Your task to perform on an android device: Open settings on Google Maps Image 0: 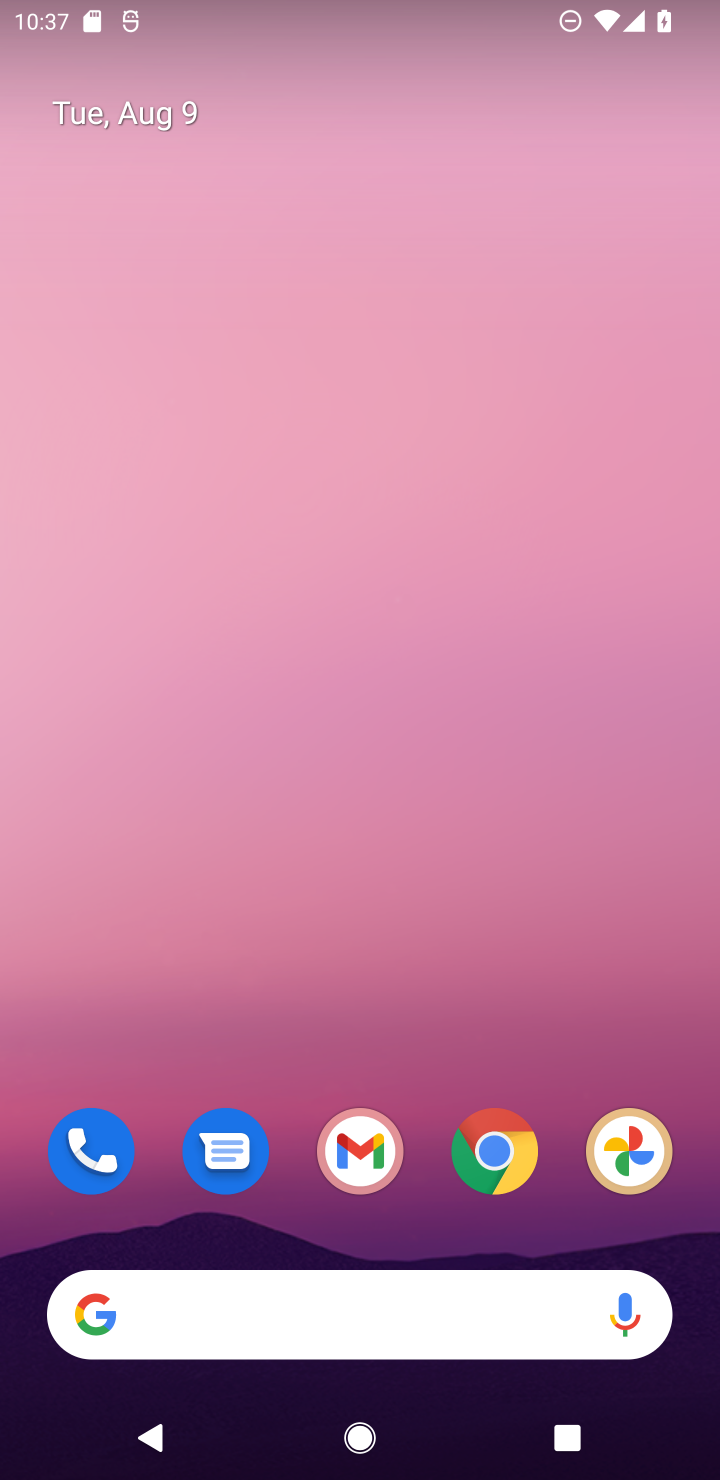
Step 0: drag from (435, 1195) to (339, 323)
Your task to perform on an android device: Open settings on Google Maps Image 1: 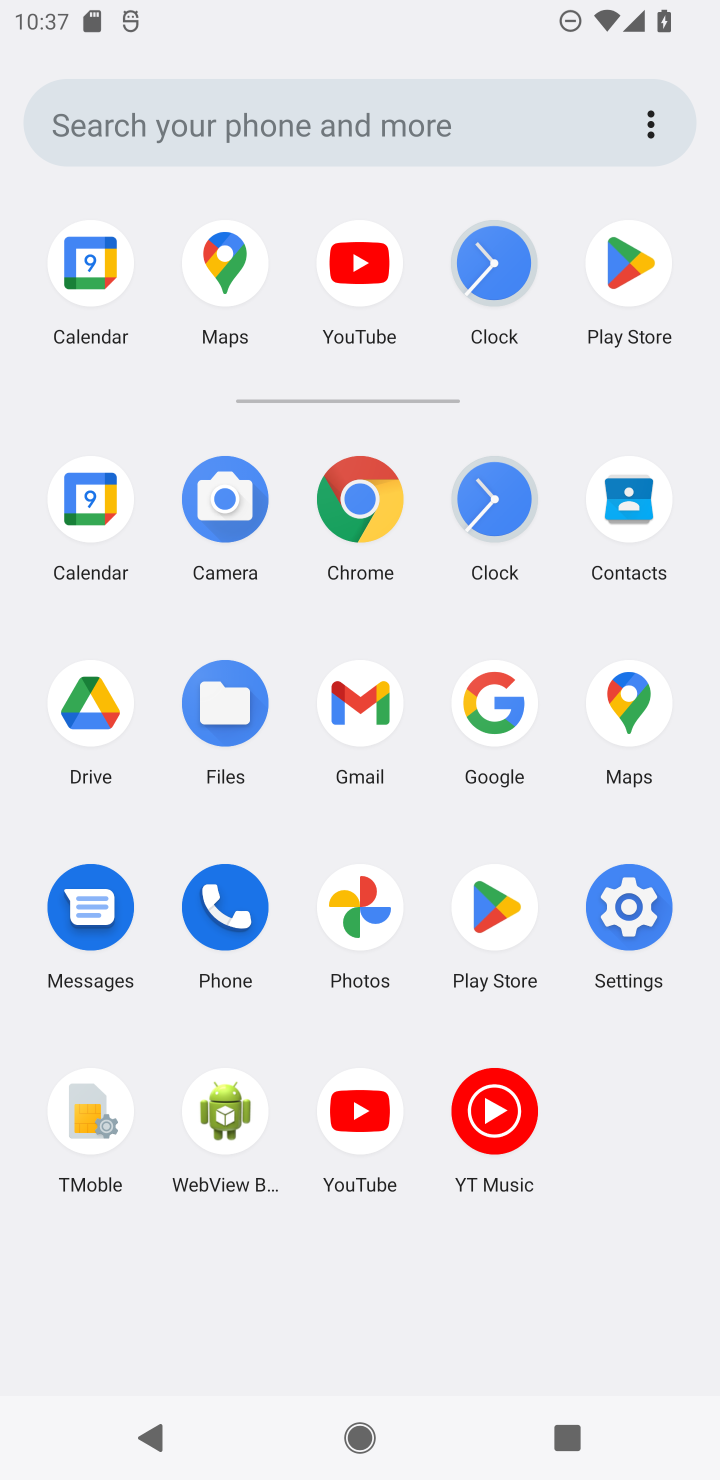
Step 1: click (226, 269)
Your task to perform on an android device: Open settings on Google Maps Image 2: 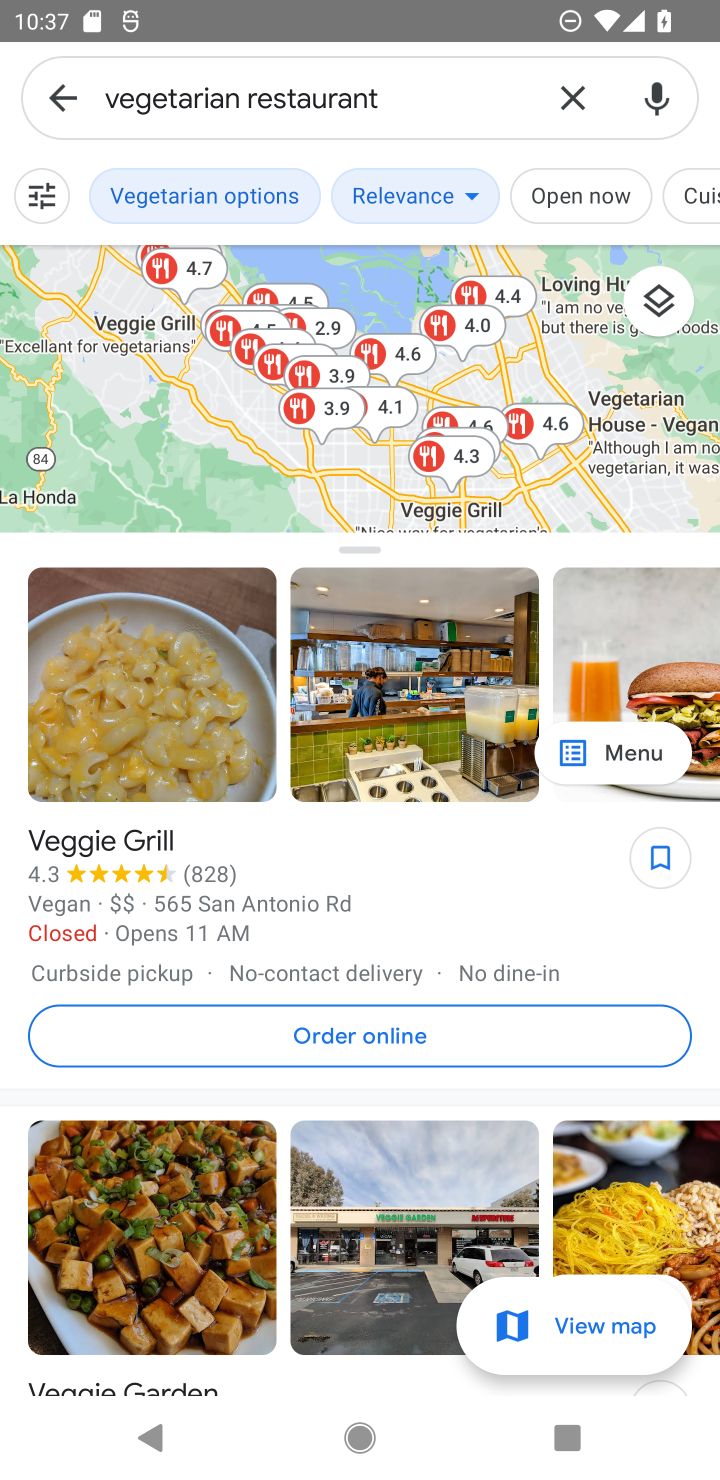
Step 2: click (578, 105)
Your task to perform on an android device: Open settings on Google Maps Image 3: 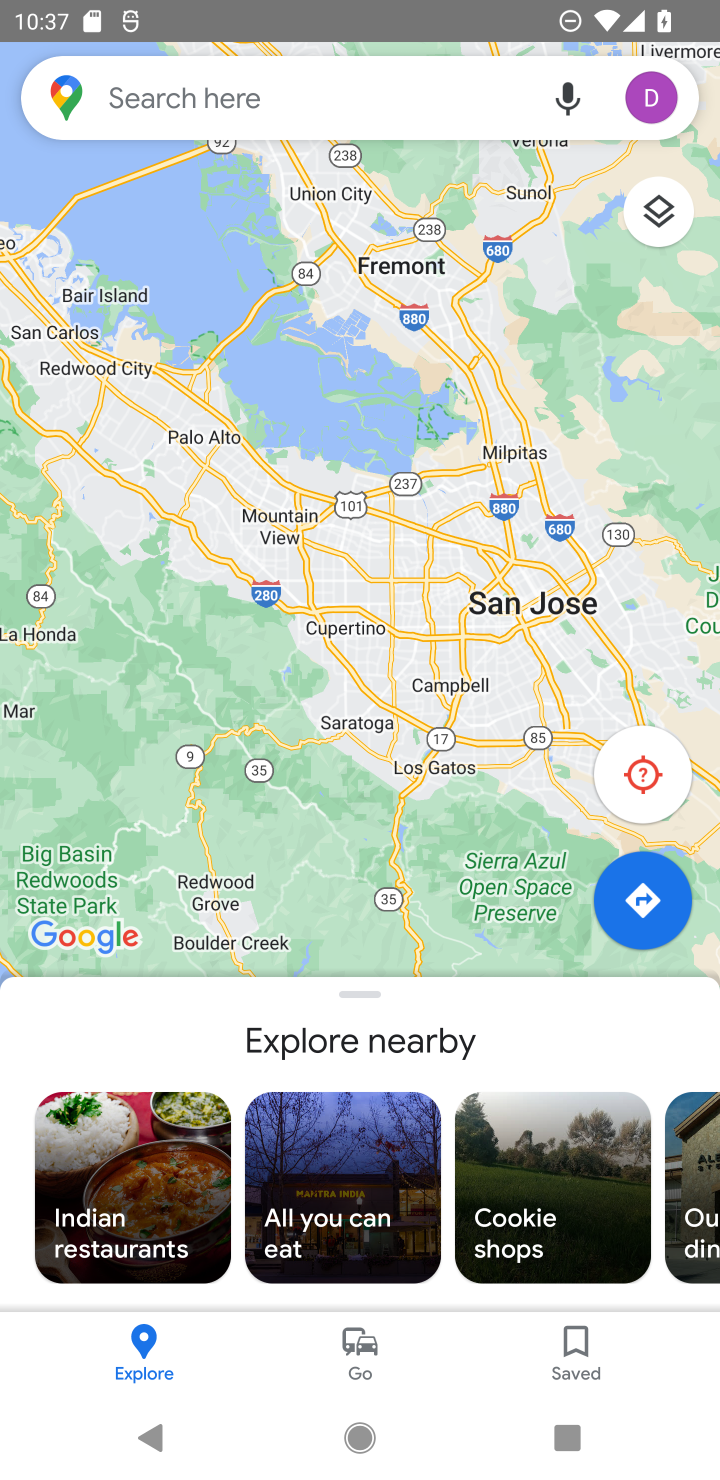
Step 3: click (668, 104)
Your task to perform on an android device: Open settings on Google Maps Image 4: 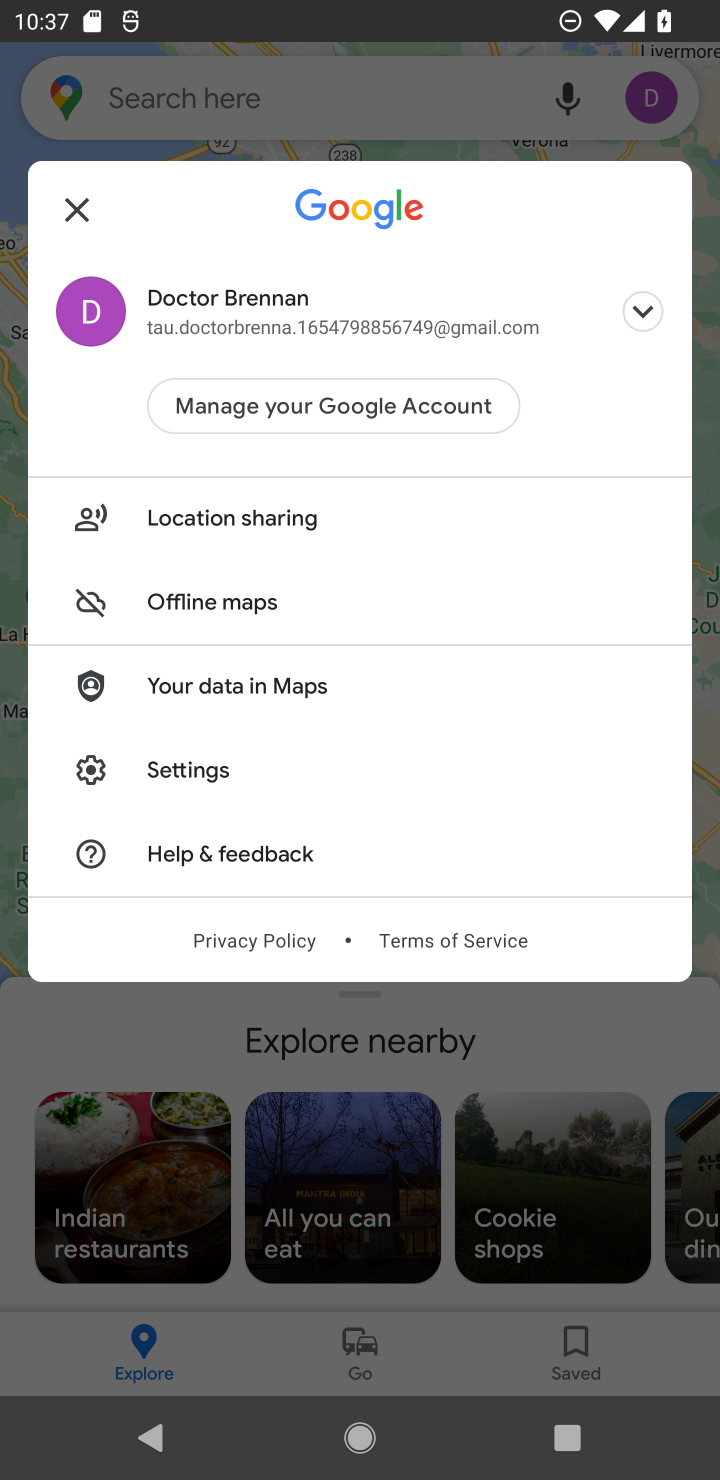
Step 4: click (200, 767)
Your task to perform on an android device: Open settings on Google Maps Image 5: 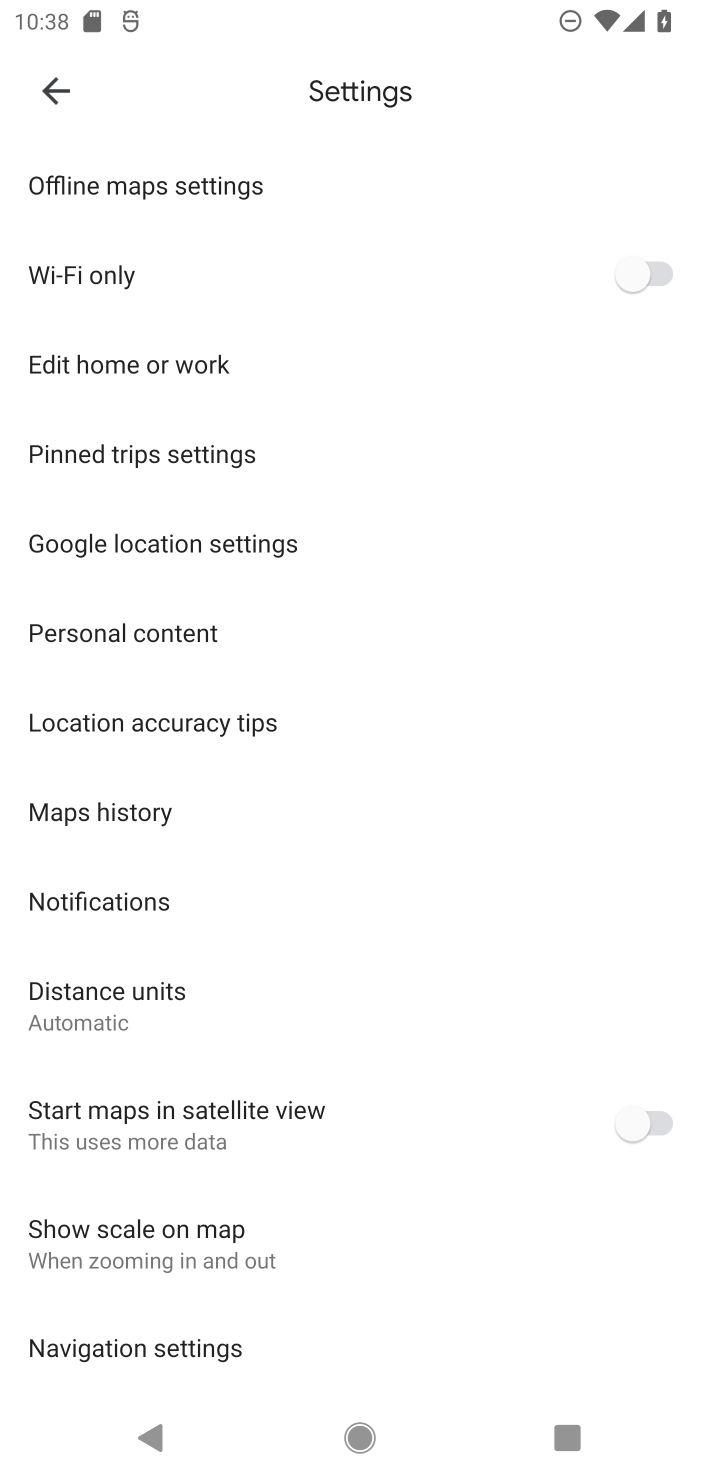
Step 5: click (126, 181)
Your task to perform on an android device: Open settings on Google Maps Image 6: 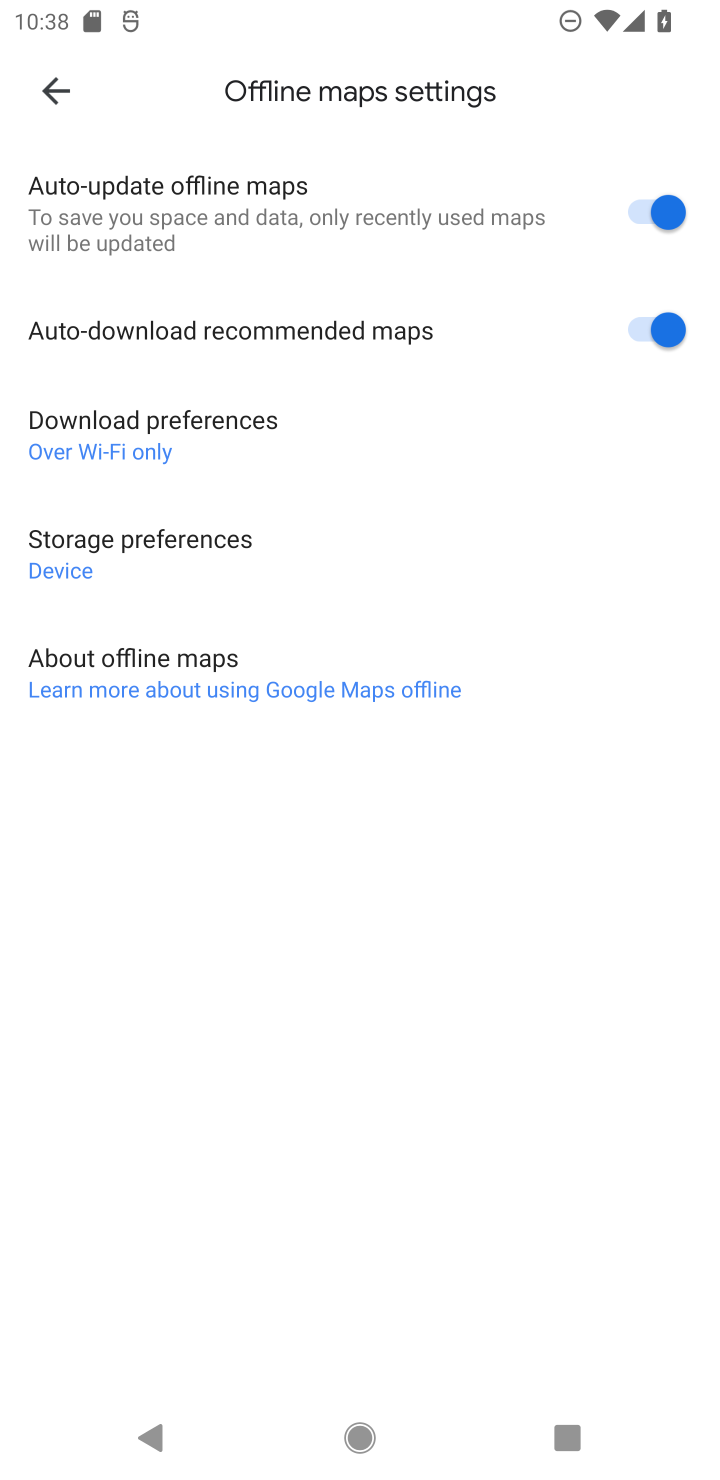
Step 6: task complete